Your task to perform on an android device: When is my next meeting? Image 0: 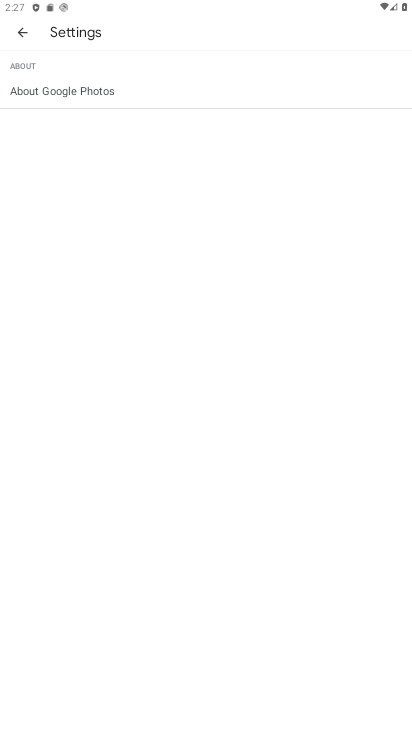
Step 0: press home button
Your task to perform on an android device: When is my next meeting? Image 1: 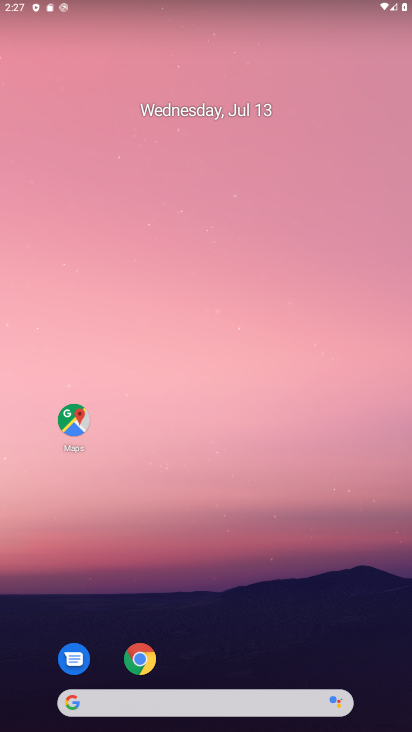
Step 1: drag from (283, 564) to (255, 187)
Your task to perform on an android device: When is my next meeting? Image 2: 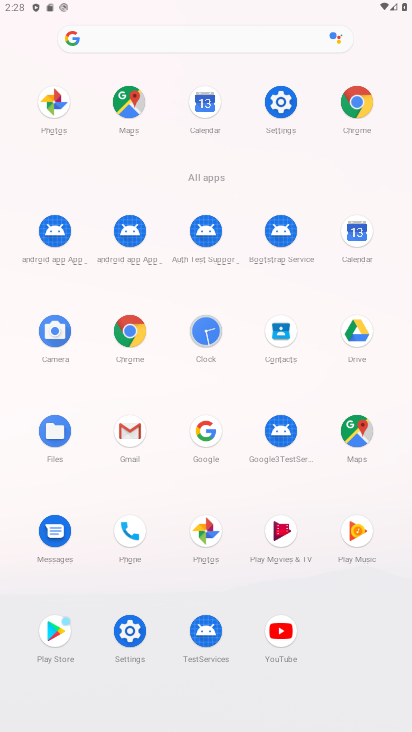
Step 2: click (207, 94)
Your task to perform on an android device: When is my next meeting? Image 3: 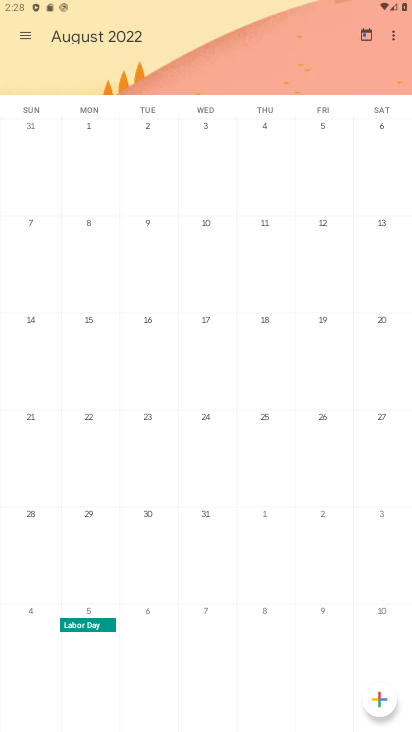
Step 3: task complete